Your task to perform on an android device: find which apps use the phone's location Image 0: 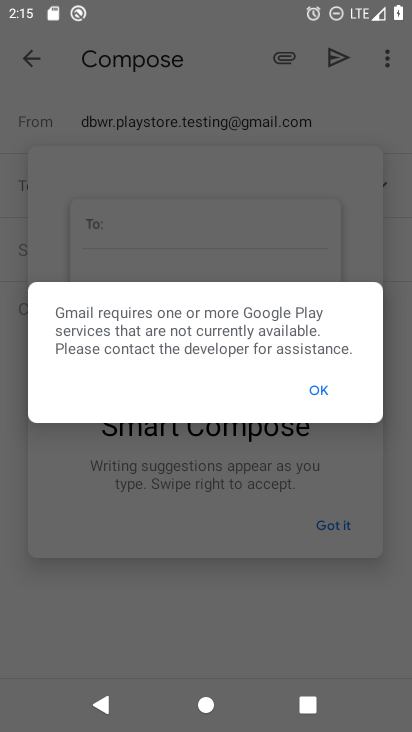
Step 0: press back button
Your task to perform on an android device: find which apps use the phone's location Image 1: 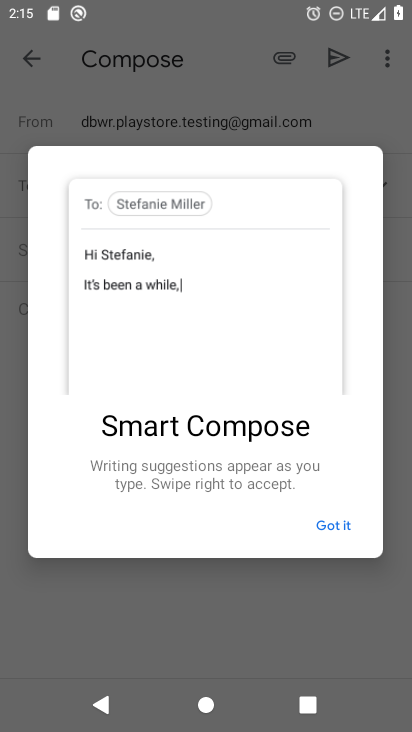
Step 1: press home button
Your task to perform on an android device: find which apps use the phone's location Image 2: 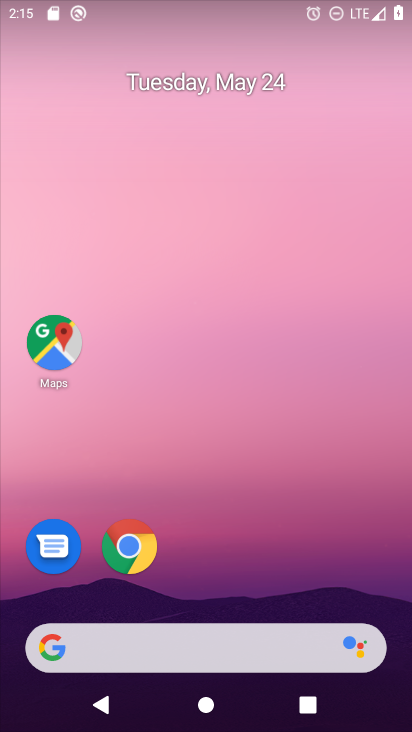
Step 2: drag from (237, 638) to (272, 88)
Your task to perform on an android device: find which apps use the phone's location Image 3: 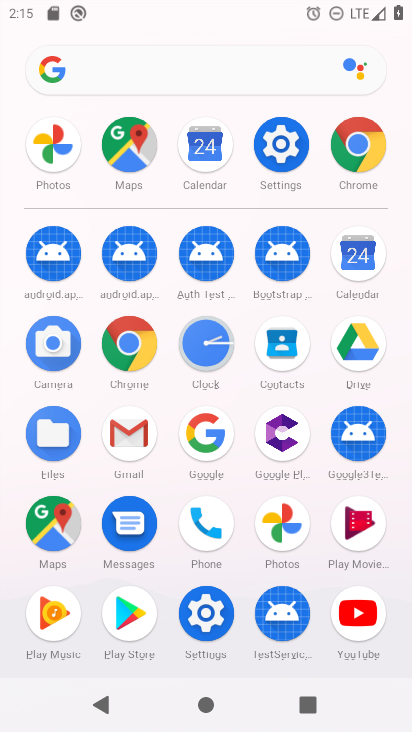
Step 3: click (286, 155)
Your task to perform on an android device: find which apps use the phone's location Image 4: 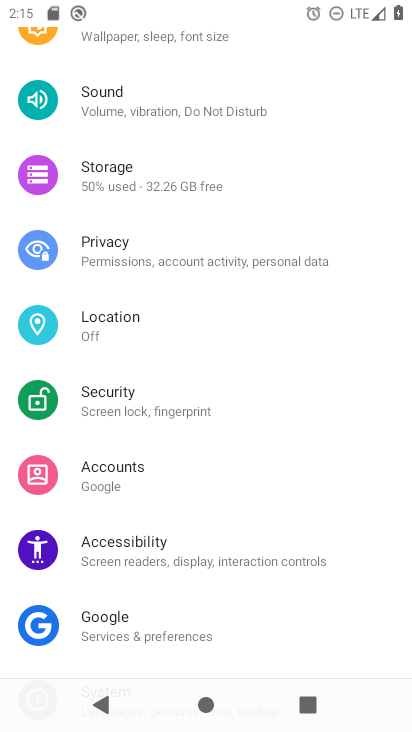
Step 4: click (156, 343)
Your task to perform on an android device: find which apps use the phone's location Image 5: 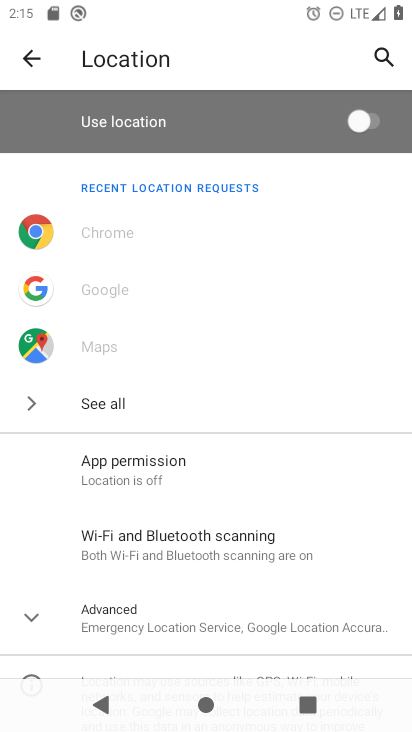
Step 5: task complete